Your task to perform on an android device: When is my next meeting? Image 0: 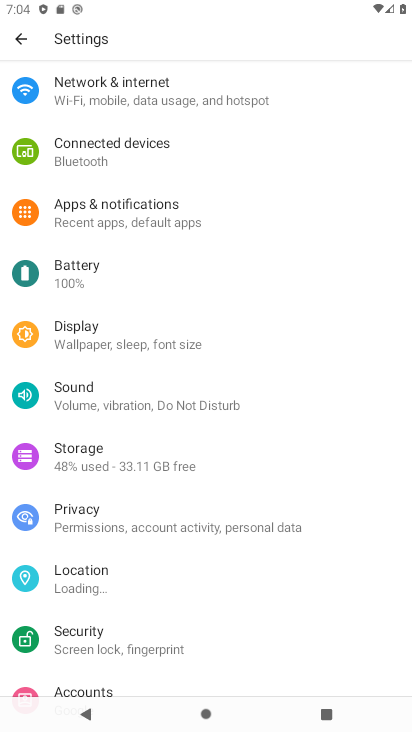
Step 0: press home button
Your task to perform on an android device: When is my next meeting? Image 1: 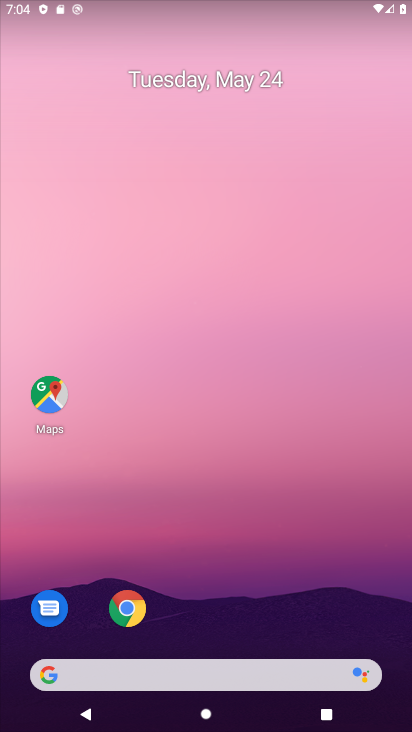
Step 1: drag from (272, 588) to (193, 93)
Your task to perform on an android device: When is my next meeting? Image 2: 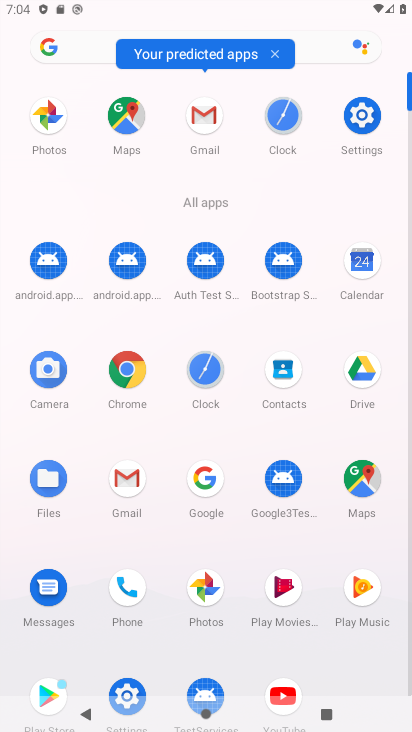
Step 2: click (361, 263)
Your task to perform on an android device: When is my next meeting? Image 3: 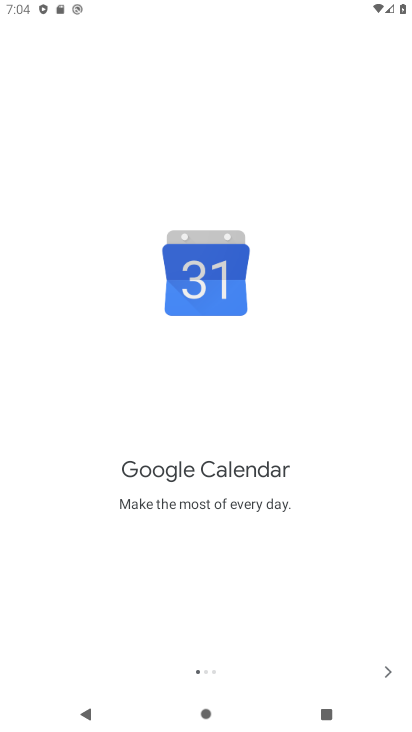
Step 3: click (387, 672)
Your task to perform on an android device: When is my next meeting? Image 4: 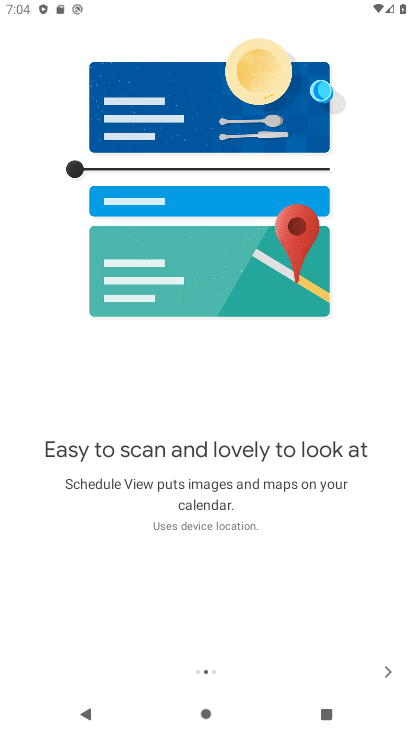
Step 4: click (387, 672)
Your task to perform on an android device: When is my next meeting? Image 5: 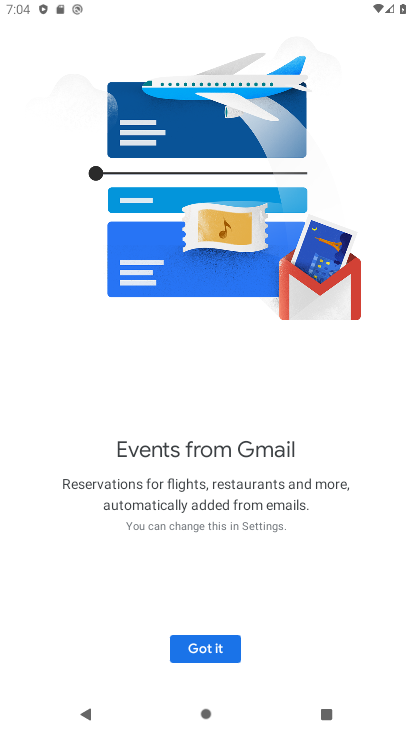
Step 5: click (218, 655)
Your task to perform on an android device: When is my next meeting? Image 6: 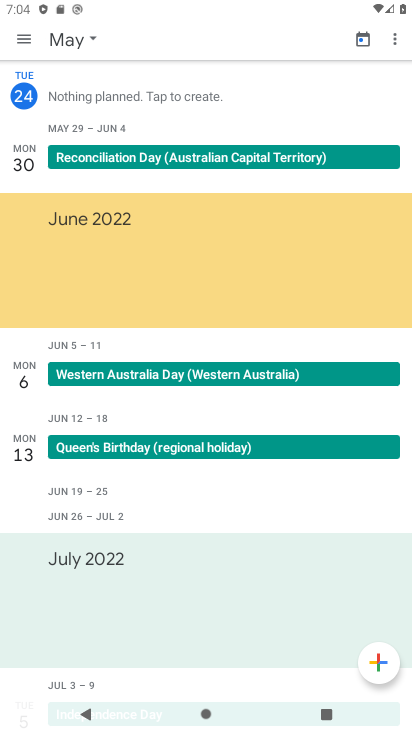
Step 6: click (91, 40)
Your task to perform on an android device: When is my next meeting? Image 7: 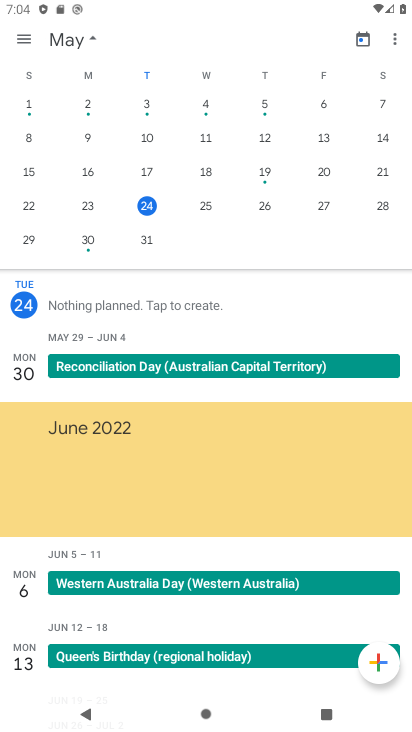
Step 7: click (93, 241)
Your task to perform on an android device: When is my next meeting? Image 8: 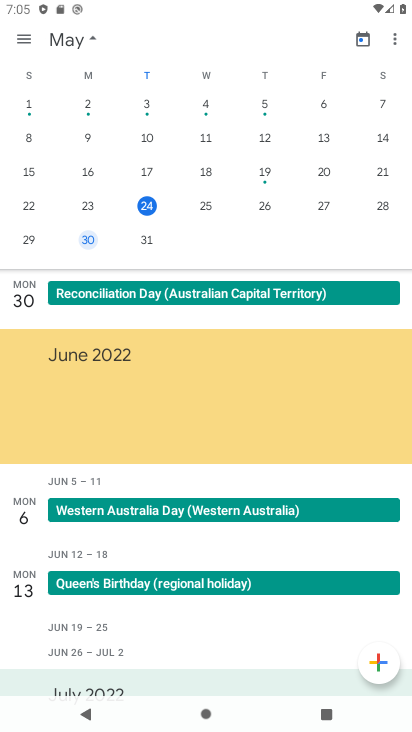
Step 8: click (21, 35)
Your task to perform on an android device: When is my next meeting? Image 9: 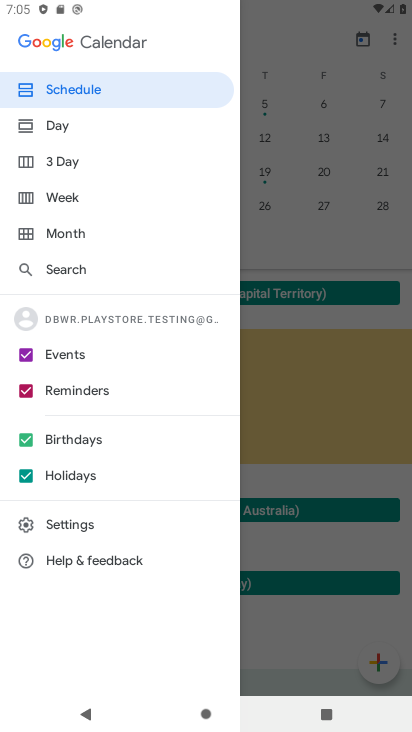
Step 9: click (71, 196)
Your task to perform on an android device: When is my next meeting? Image 10: 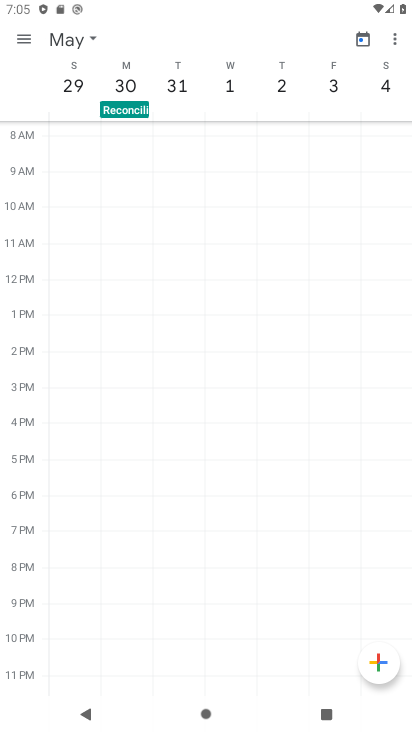
Step 10: task complete